Your task to perform on an android device: turn off location Image 0: 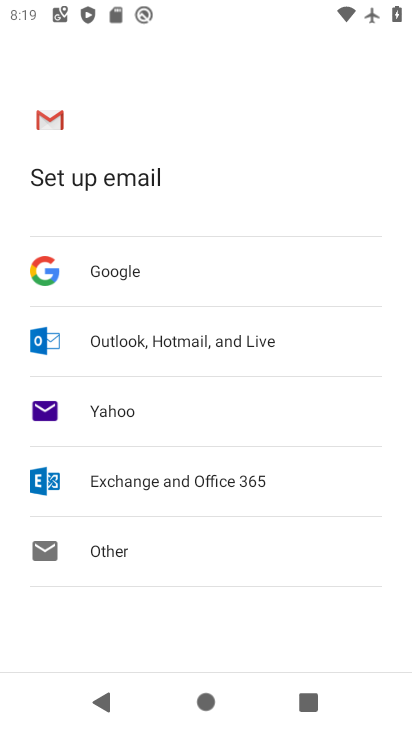
Step 0: press home button
Your task to perform on an android device: turn off location Image 1: 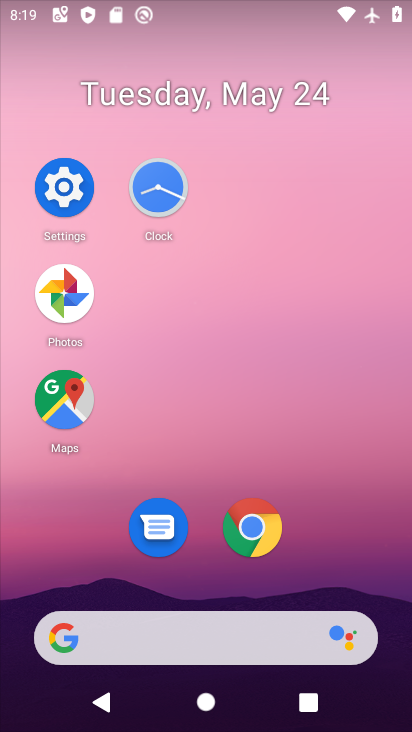
Step 1: click (58, 182)
Your task to perform on an android device: turn off location Image 2: 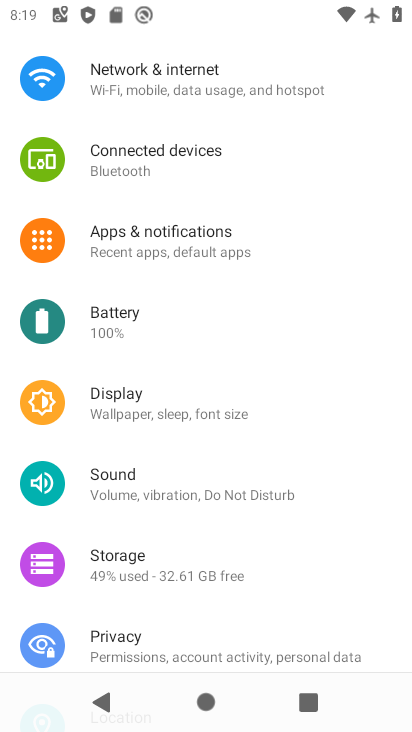
Step 2: drag from (231, 580) to (255, 367)
Your task to perform on an android device: turn off location Image 3: 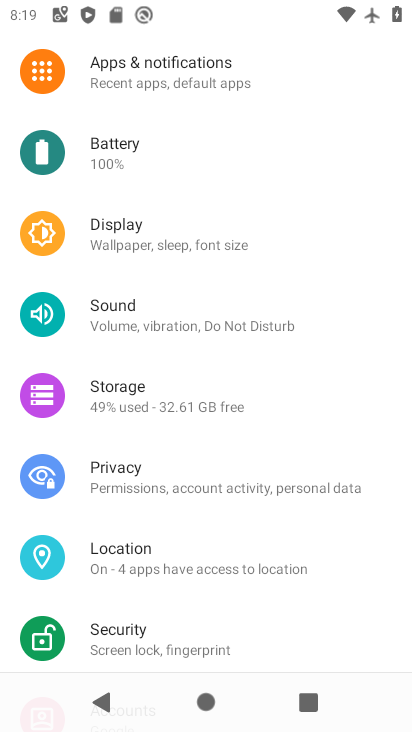
Step 3: click (157, 550)
Your task to perform on an android device: turn off location Image 4: 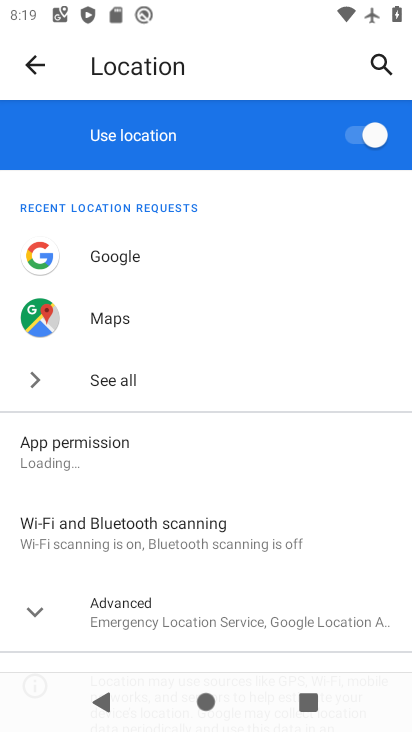
Step 4: click (378, 130)
Your task to perform on an android device: turn off location Image 5: 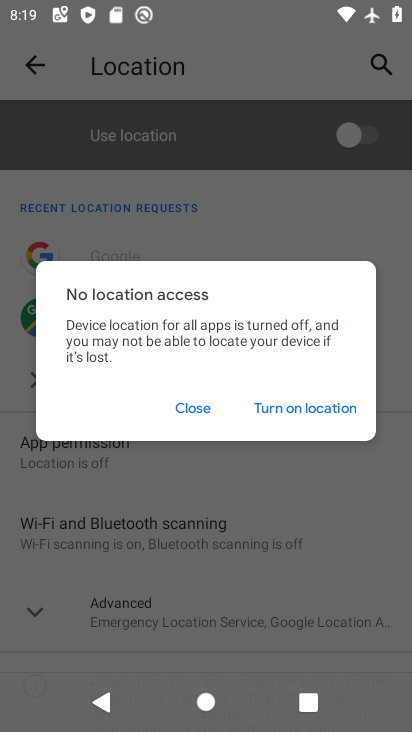
Step 5: click (184, 404)
Your task to perform on an android device: turn off location Image 6: 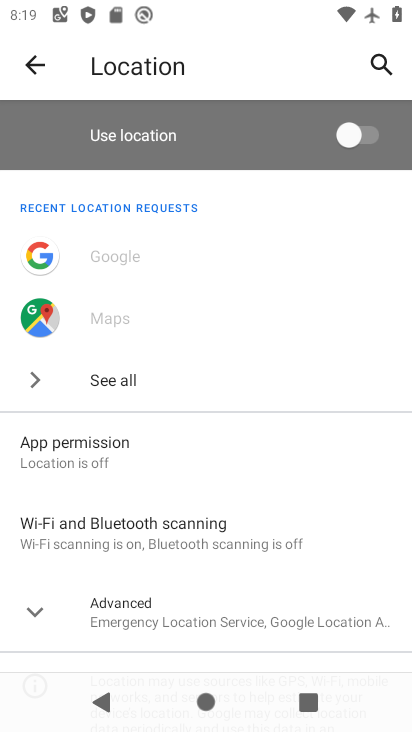
Step 6: task complete